Your task to perform on an android device: remove spam from my inbox in the gmail app Image 0: 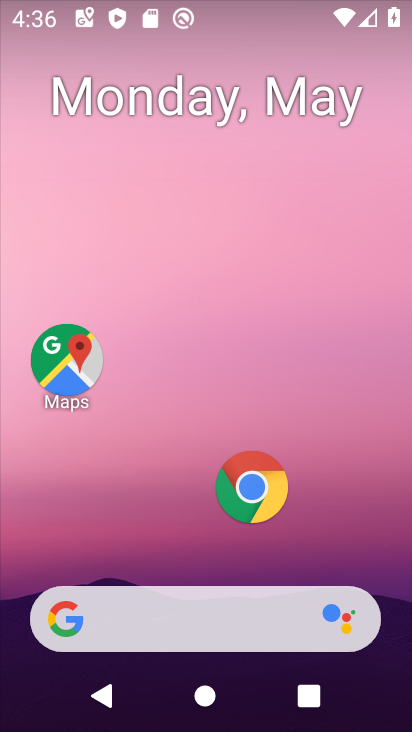
Step 0: drag from (150, 728) to (193, 2)
Your task to perform on an android device: remove spam from my inbox in the gmail app Image 1: 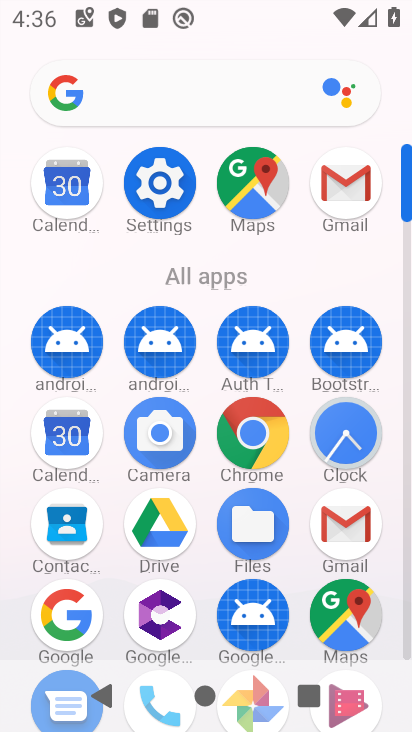
Step 1: click (345, 194)
Your task to perform on an android device: remove spam from my inbox in the gmail app Image 2: 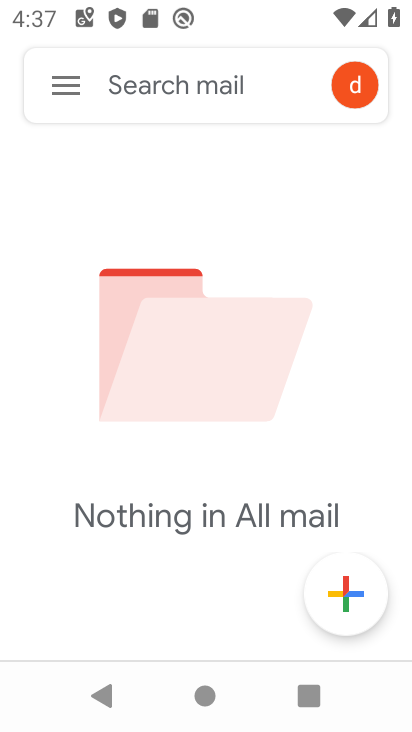
Step 2: click (42, 88)
Your task to perform on an android device: remove spam from my inbox in the gmail app Image 3: 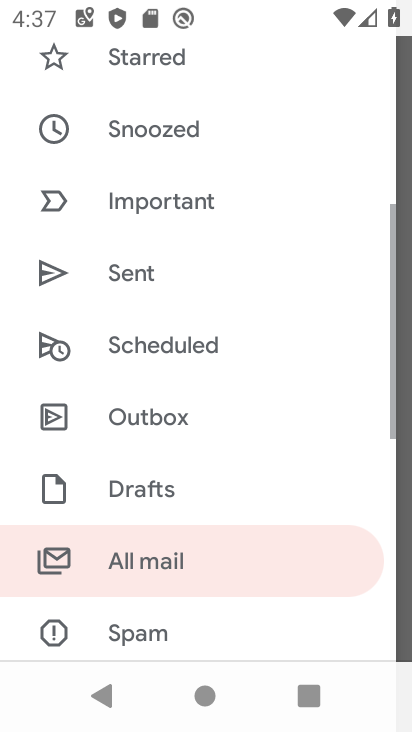
Step 3: click (121, 634)
Your task to perform on an android device: remove spam from my inbox in the gmail app Image 4: 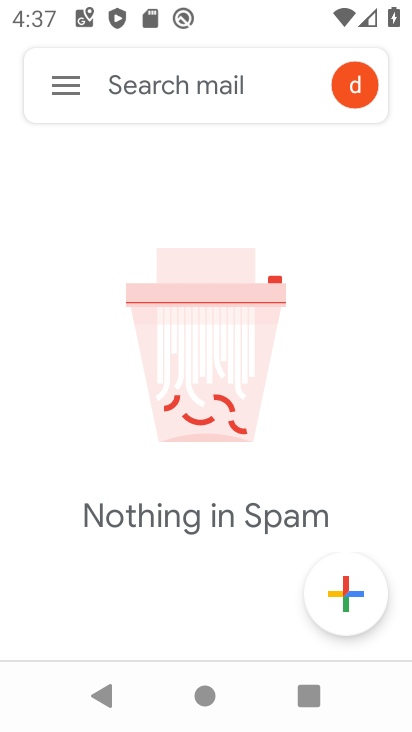
Step 4: task complete